Your task to perform on an android device: find snoozed emails in the gmail app Image 0: 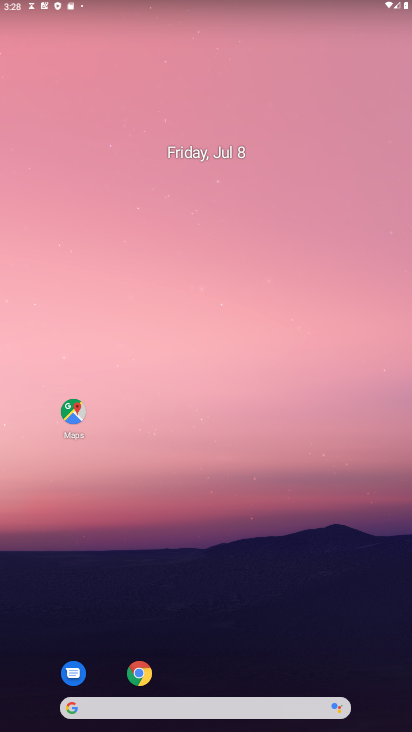
Step 0: drag from (171, 422) to (188, 21)
Your task to perform on an android device: find snoozed emails in the gmail app Image 1: 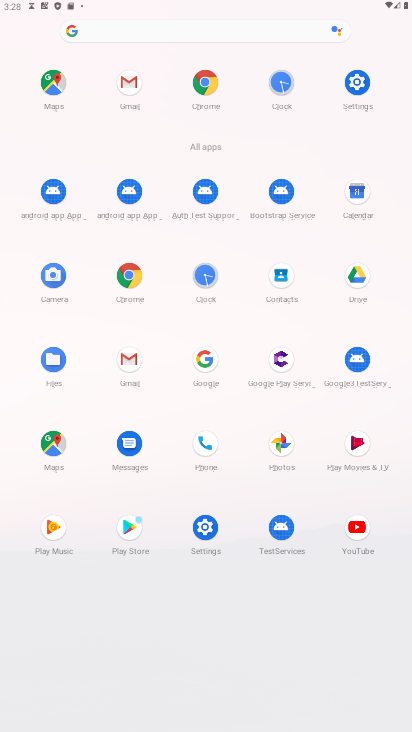
Step 1: click (127, 356)
Your task to perform on an android device: find snoozed emails in the gmail app Image 2: 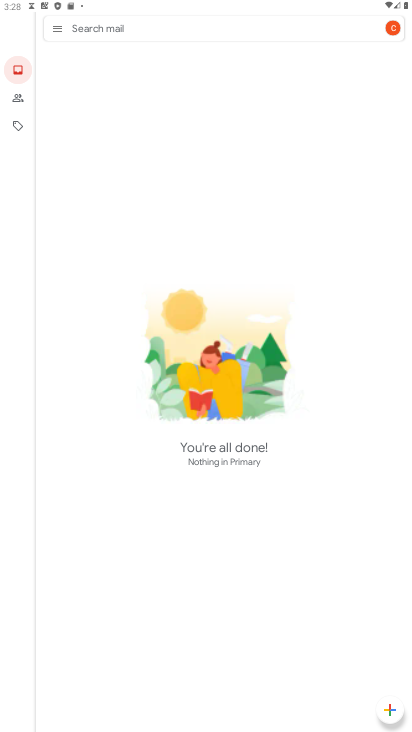
Step 2: click (53, 26)
Your task to perform on an android device: find snoozed emails in the gmail app Image 3: 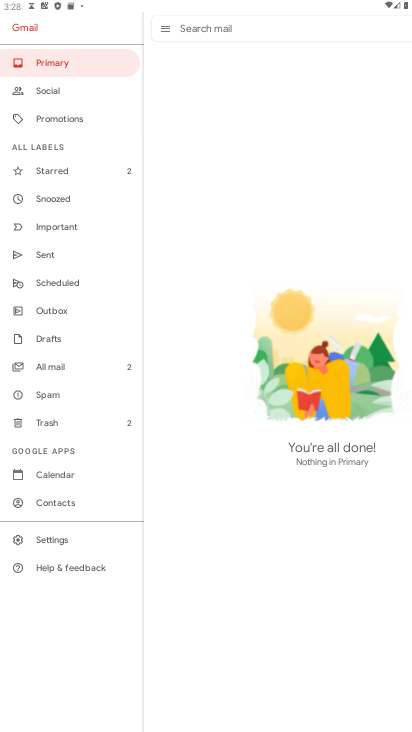
Step 3: click (63, 533)
Your task to perform on an android device: find snoozed emails in the gmail app Image 4: 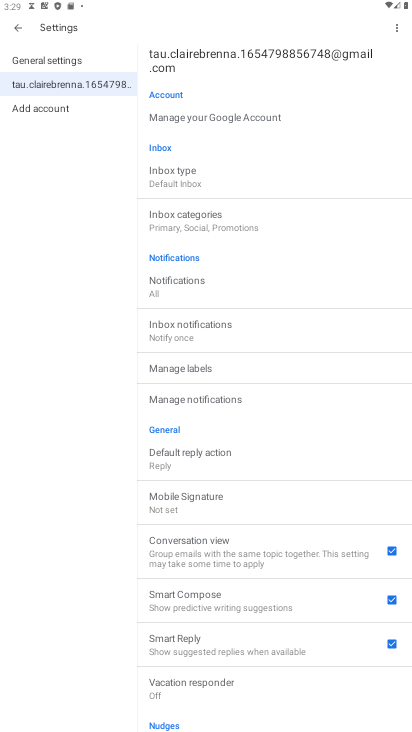
Step 4: click (23, 23)
Your task to perform on an android device: find snoozed emails in the gmail app Image 5: 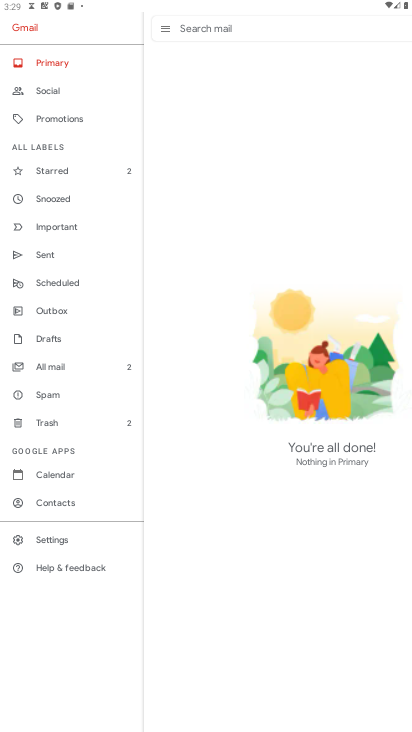
Step 5: click (57, 199)
Your task to perform on an android device: find snoozed emails in the gmail app Image 6: 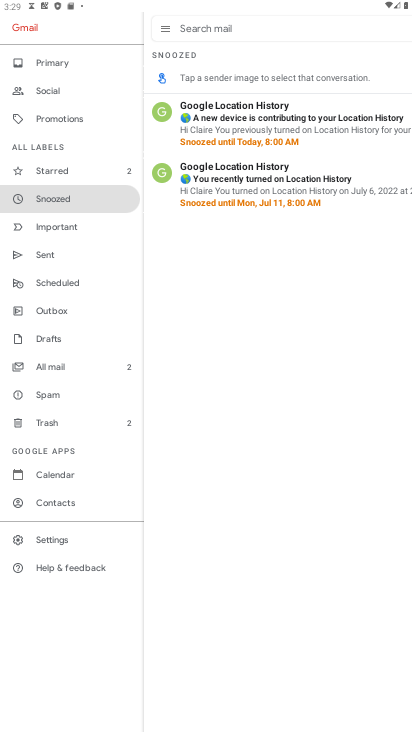
Step 6: task complete